Your task to perform on an android device: uninstall "LinkedIn" Image 0: 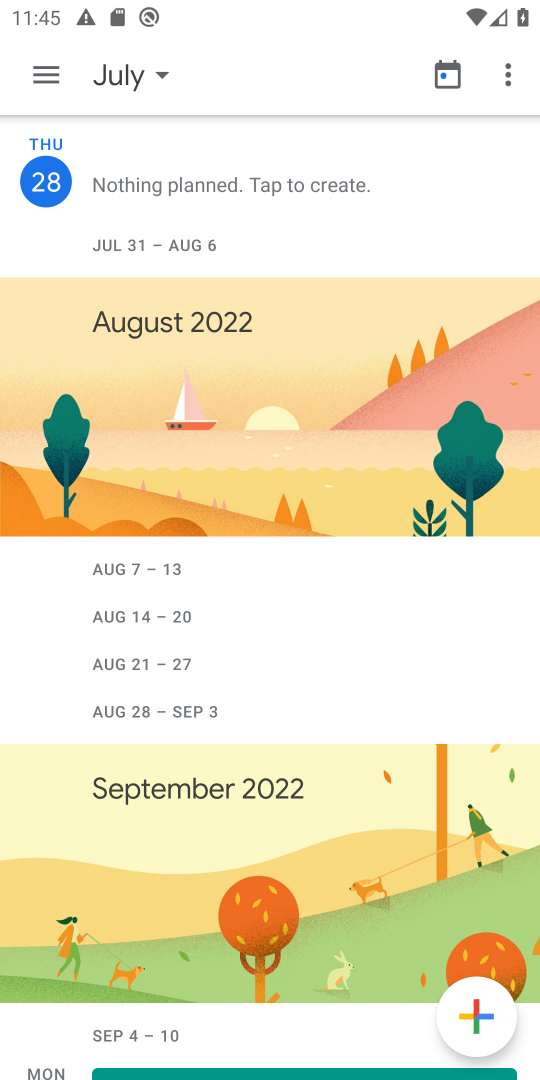
Step 0: press home button
Your task to perform on an android device: uninstall "LinkedIn" Image 1: 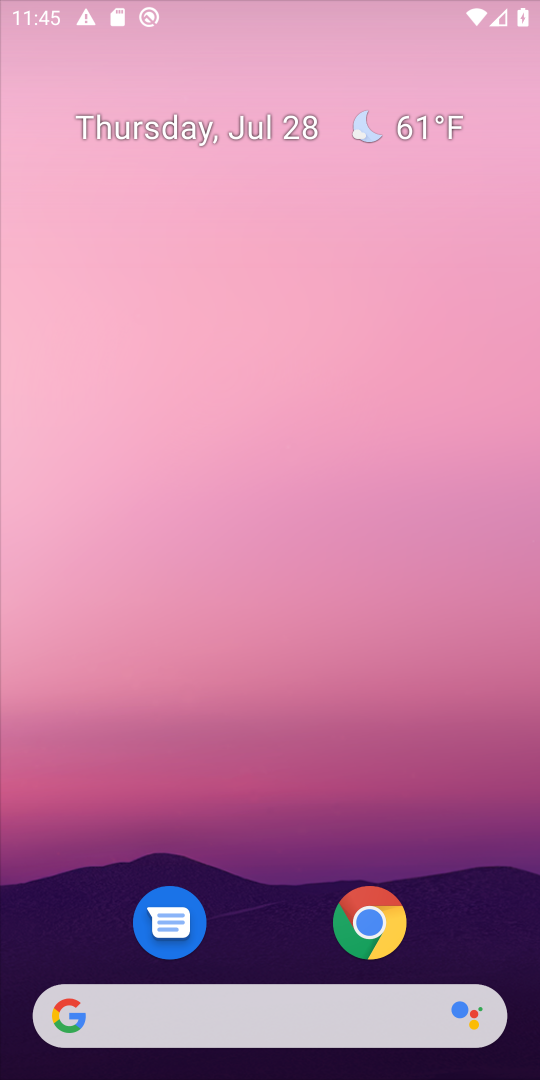
Step 1: drag from (330, 592) to (285, 25)
Your task to perform on an android device: uninstall "LinkedIn" Image 2: 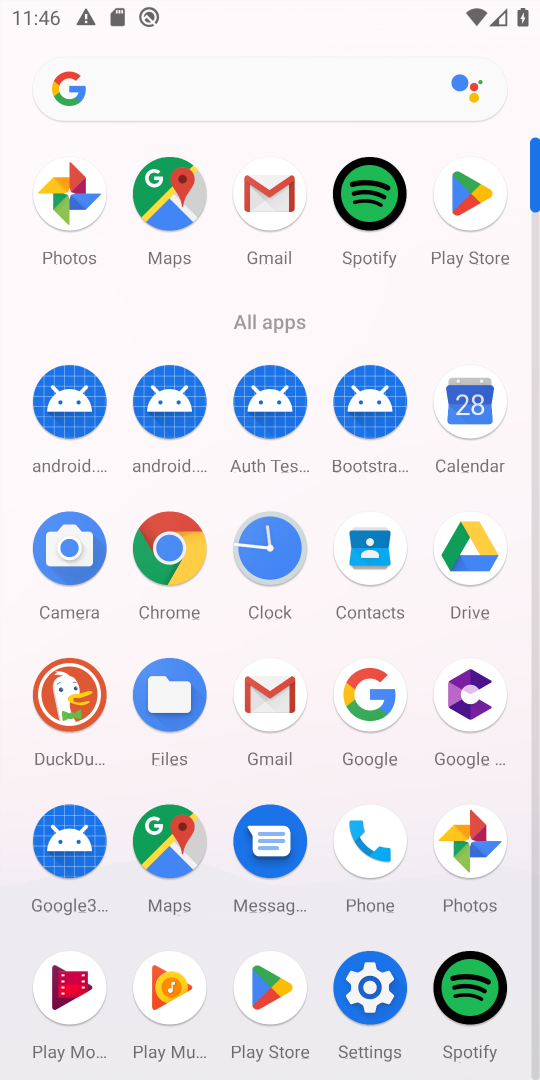
Step 2: click (477, 192)
Your task to perform on an android device: uninstall "LinkedIn" Image 3: 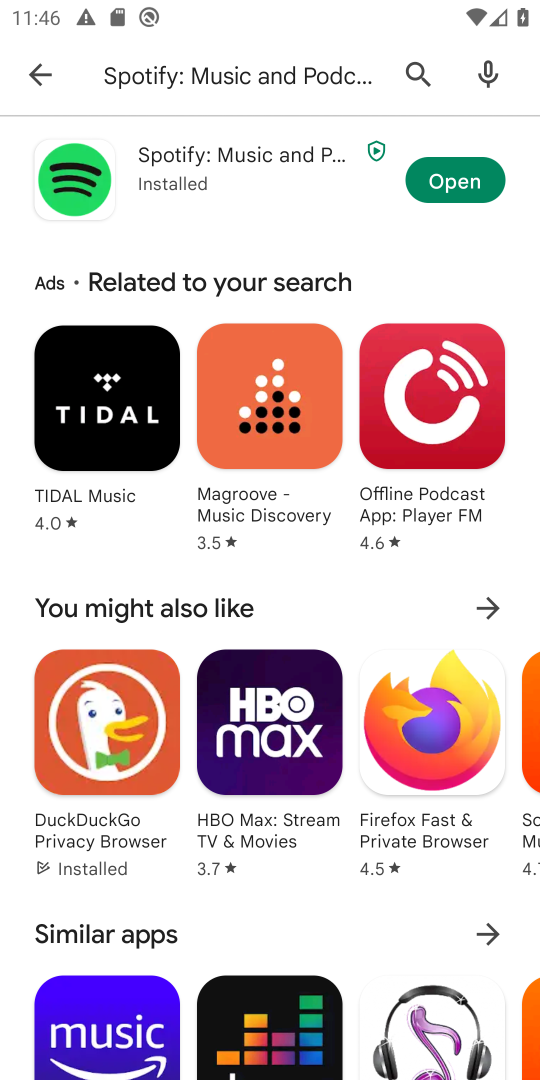
Step 3: click (312, 78)
Your task to perform on an android device: uninstall "LinkedIn" Image 4: 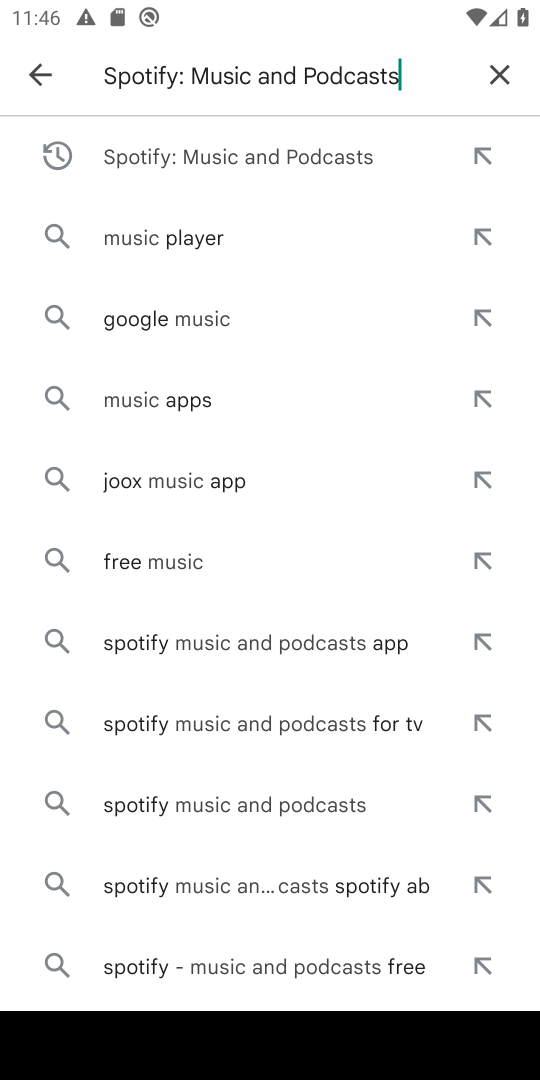
Step 4: click (505, 71)
Your task to perform on an android device: uninstall "LinkedIn" Image 5: 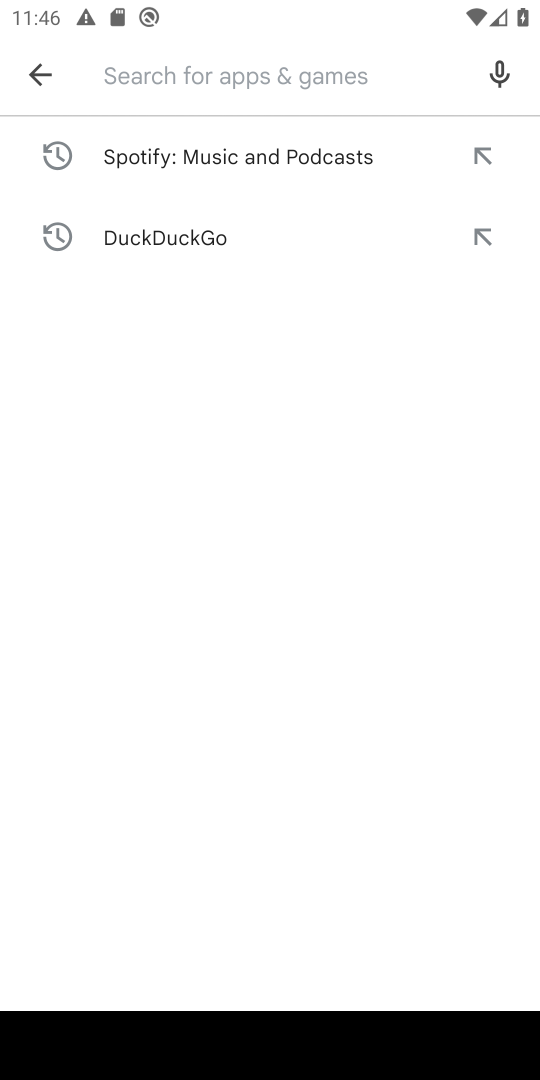
Step 5: type "Linkedln"
Your task to perform on an android device: uninstall "LinkedIn" Image 6: 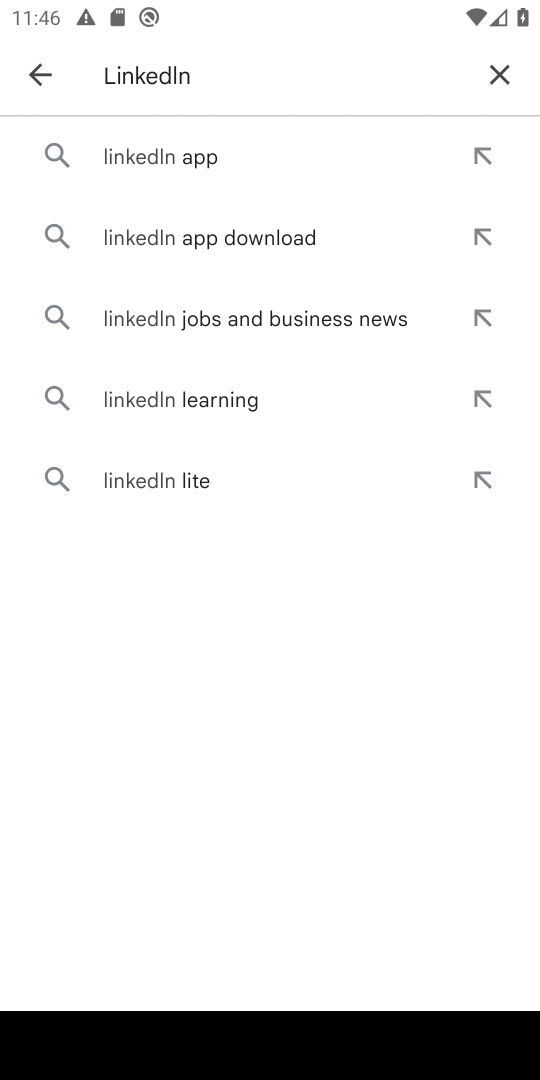
Step 6: press enter
Your task to perform on an android device: uninstall "LinkedIn" Image 7: 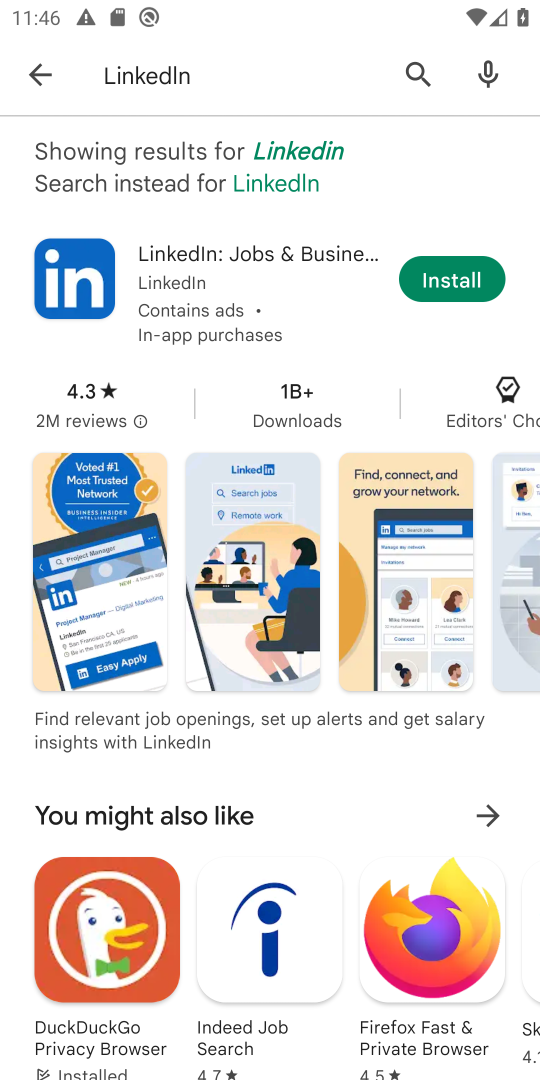
Step 7: task complete